Your task to perform on an android device: turn on bluetooth scan Image 0: 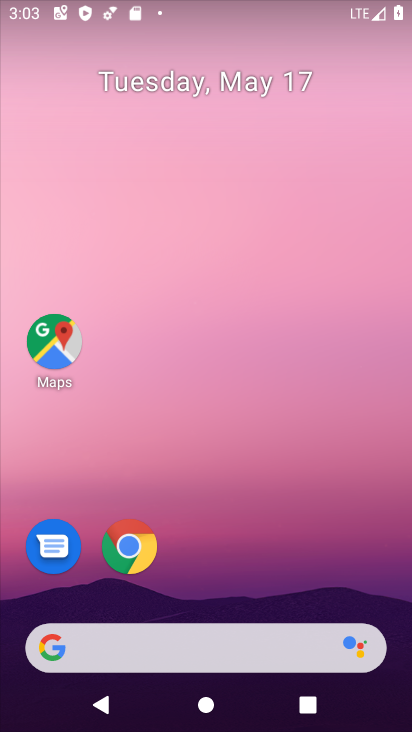
Step 0: press home button
Your task to perform on an android device: turn on bluetooth scan Image 1: 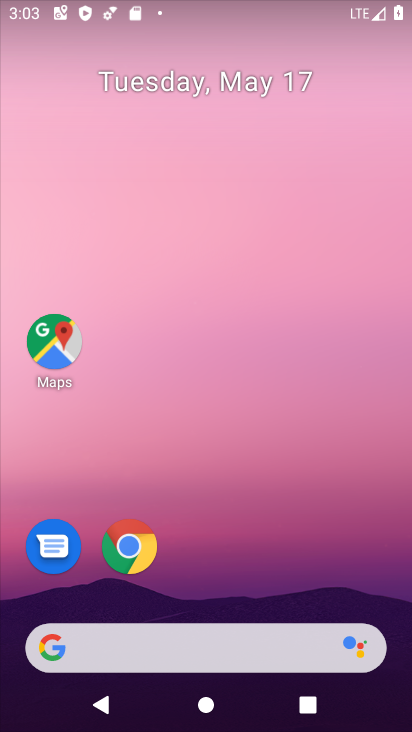
Step 1: drag from (294, 524) to (329, 0)
Your task to perform on an android device: turn on bluetooth scan Image 2: 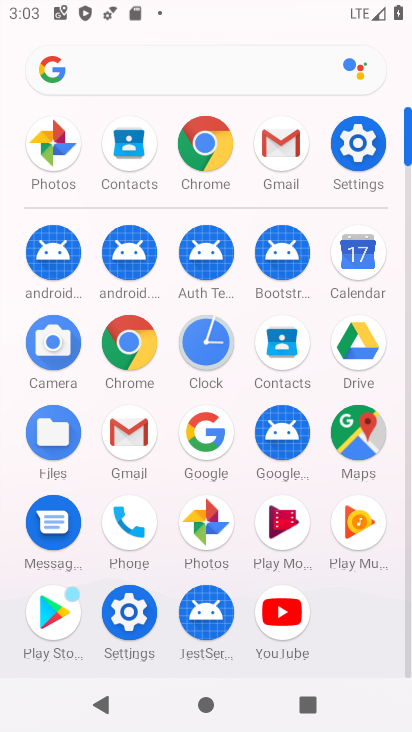
Step 2: click (366, 119)
Your task to perform on an android device: turn on bluetooth scan Image 3: 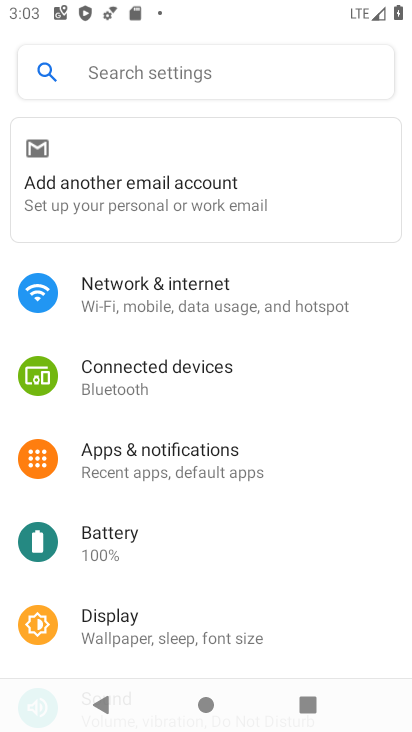
Step 3: drag from (242, 592) to (258, 0)
Your task to perform on an android device: turn on bluetooth scan Image 4: 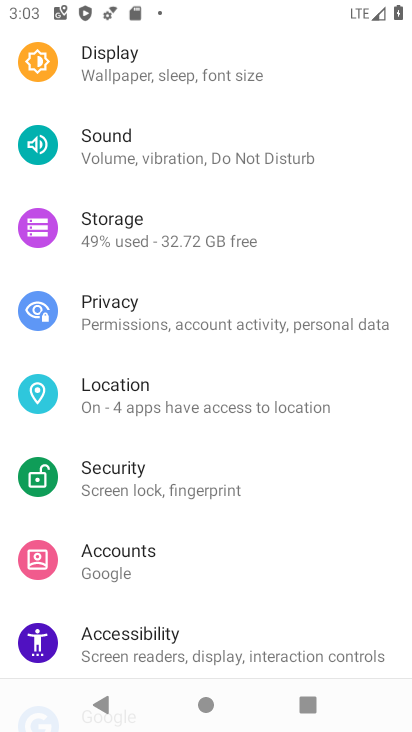
Step 4: drag from (271, 438) to (331, 13)
Your task to perform on an android device: turn on bluetooth scan Image 5: 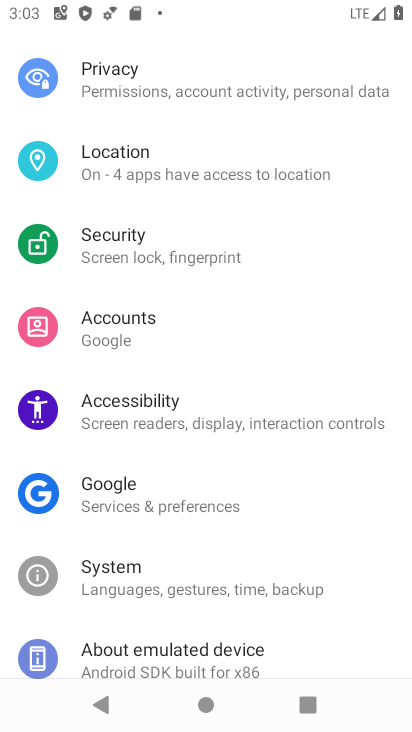
Step 5: drag from (323, 456) to (323, 83)
Your task to perform on an android device: turn on bluetooth scan Image 6: 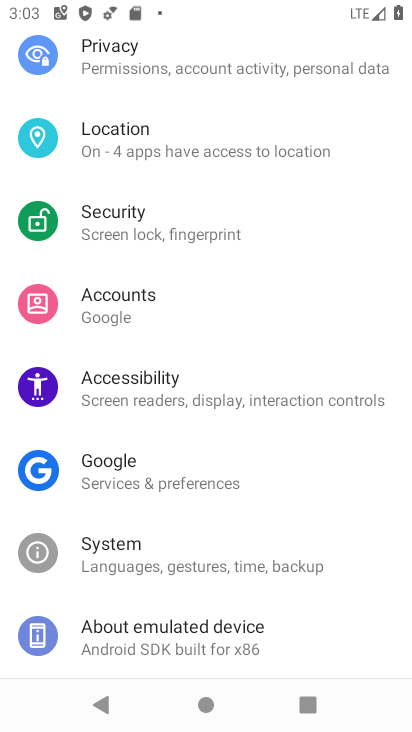
Step 6: click (161, 159)
Your task to perform on an android device: turn on bluetooth scan Image 7: 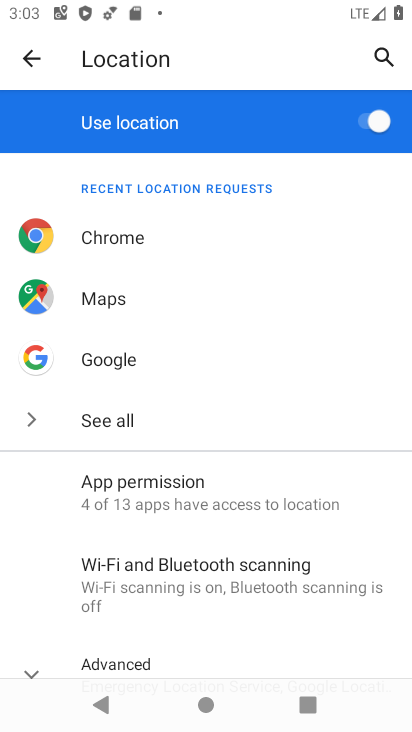
Step 7: click (184, 577)
Your task to perform on an android device: turn on bluetooth scan Image 8: 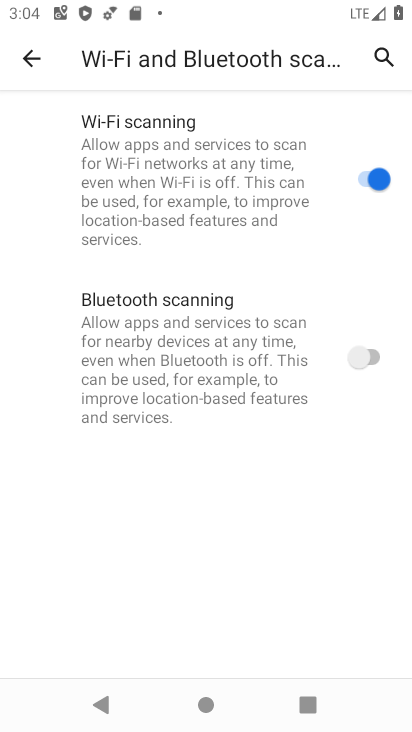
Step 8: click (340, 349)
Your task to perform on an android device: turn on bluetooth scan Image 9: 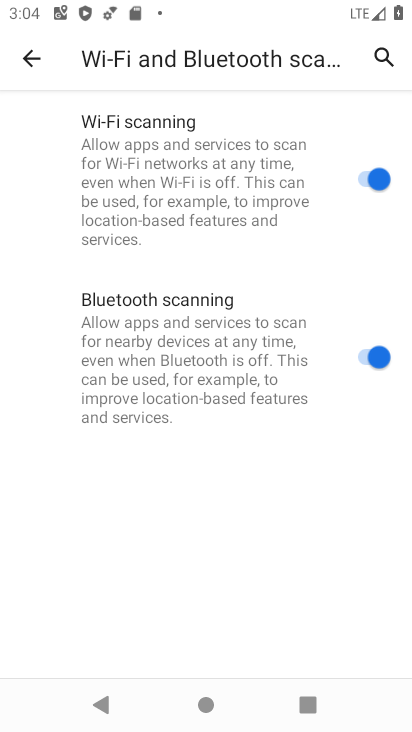
Step 9: task complete